Your task to perform on an android device: turn off notifications in google photos Image 0: 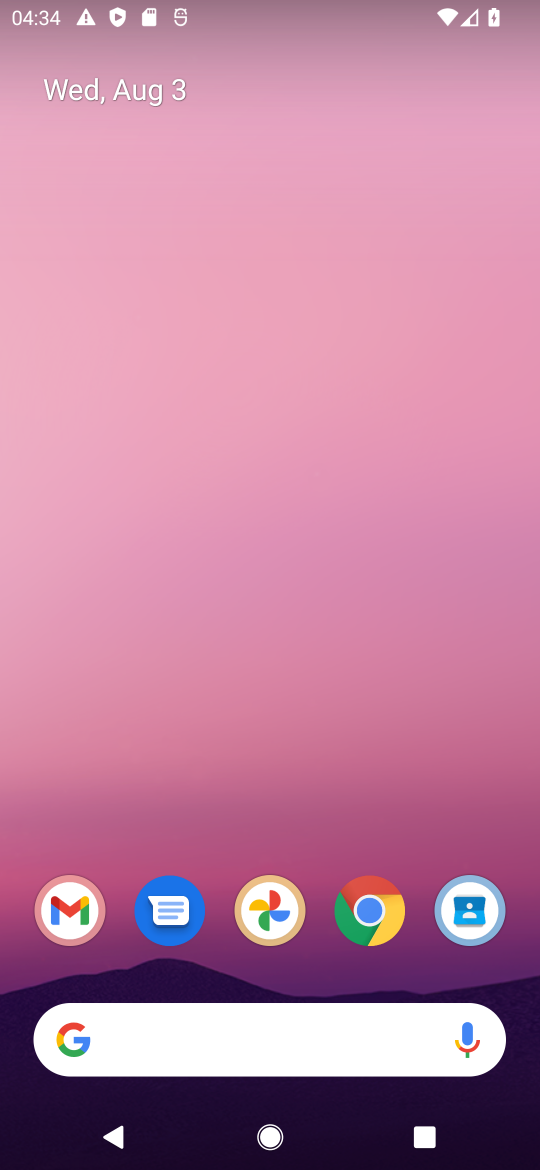
Step 0: click (275, 896)
Your task to perform on an android device: turn off notifications in google photos Image 1: 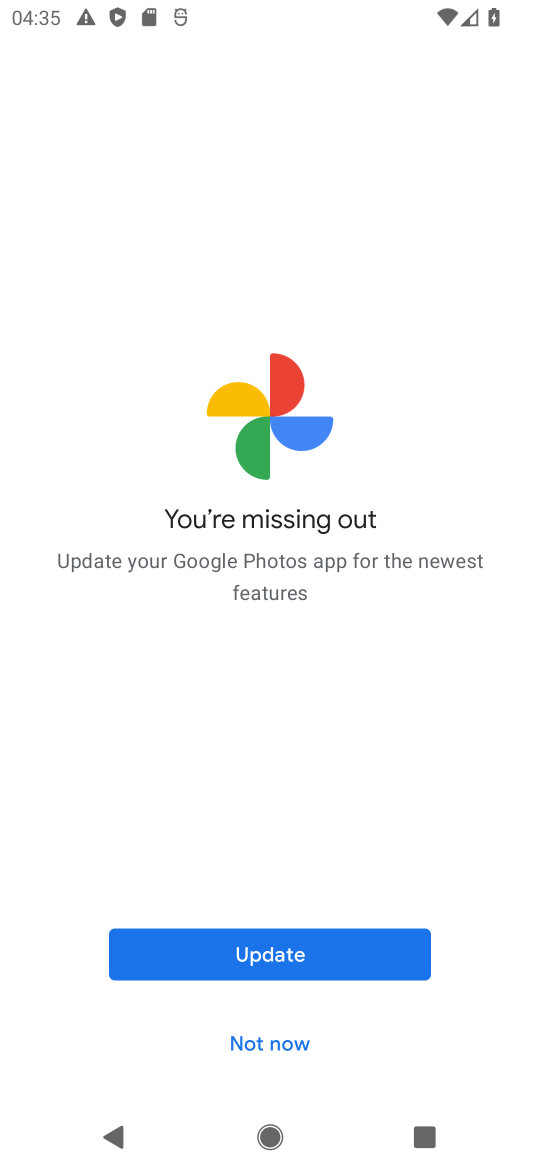
Step 1: click (273, 961)
Your task to perform on an android device: turn off notifications in google photos Image 2: 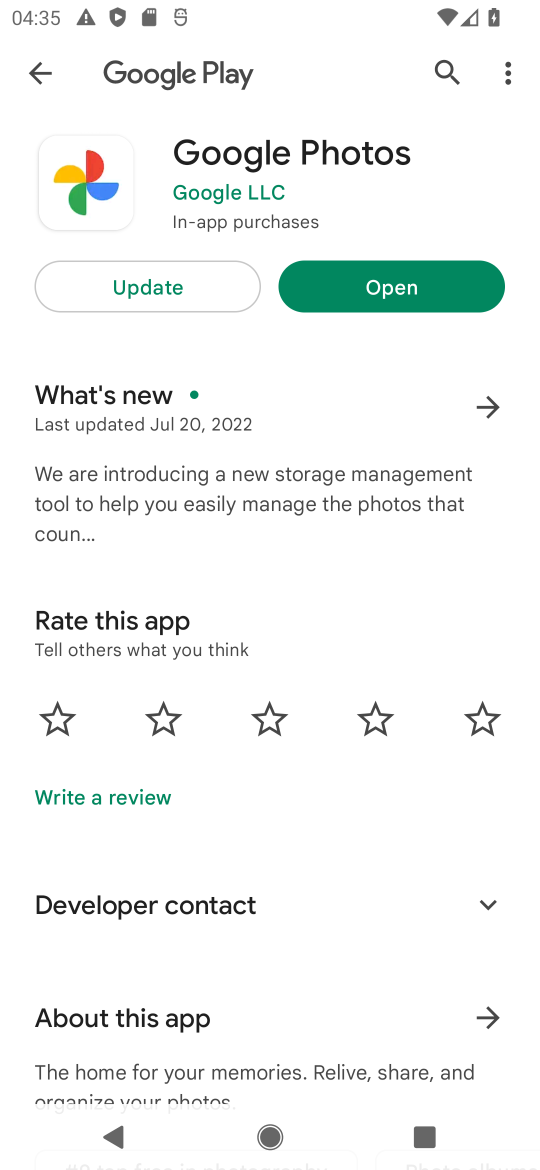
Step 2: click (97, 284)
Your task to perform on an android device: turn off notifications in google photos Image 3: 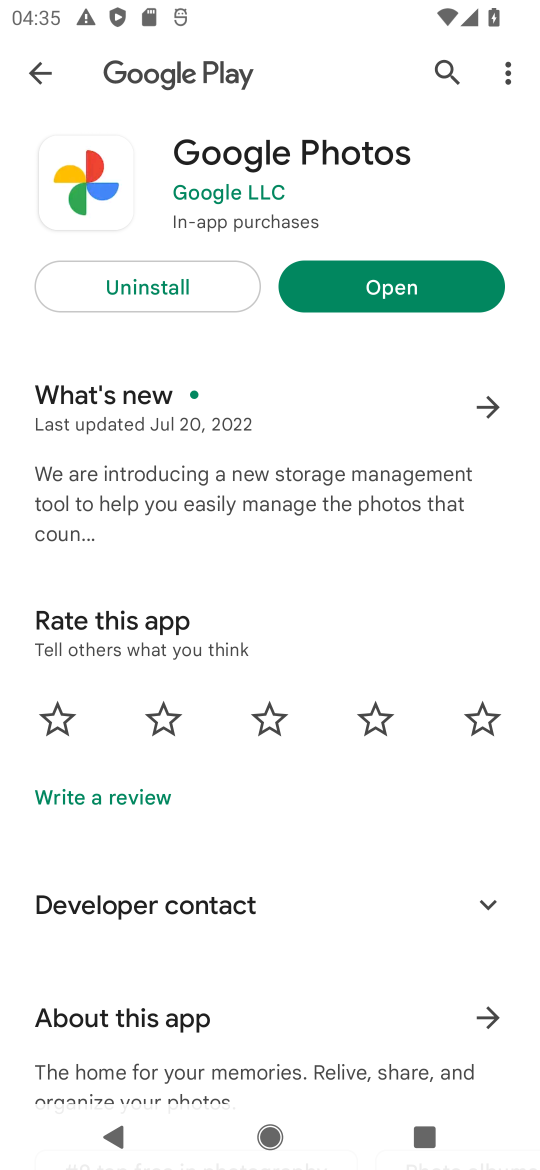
Step 3: click (405, 294)
Your task to perform on an android device: turn off notifications in google photos Image 4: 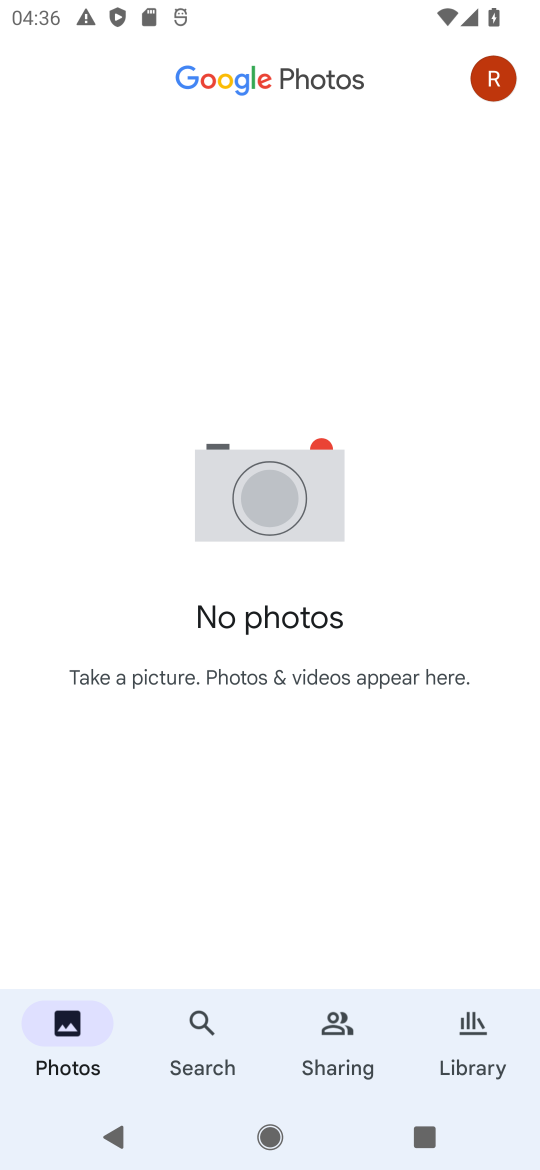
Step 4: click (507, 71)
Your task to perform on an android device: turn off notifications in google photos Image 5: 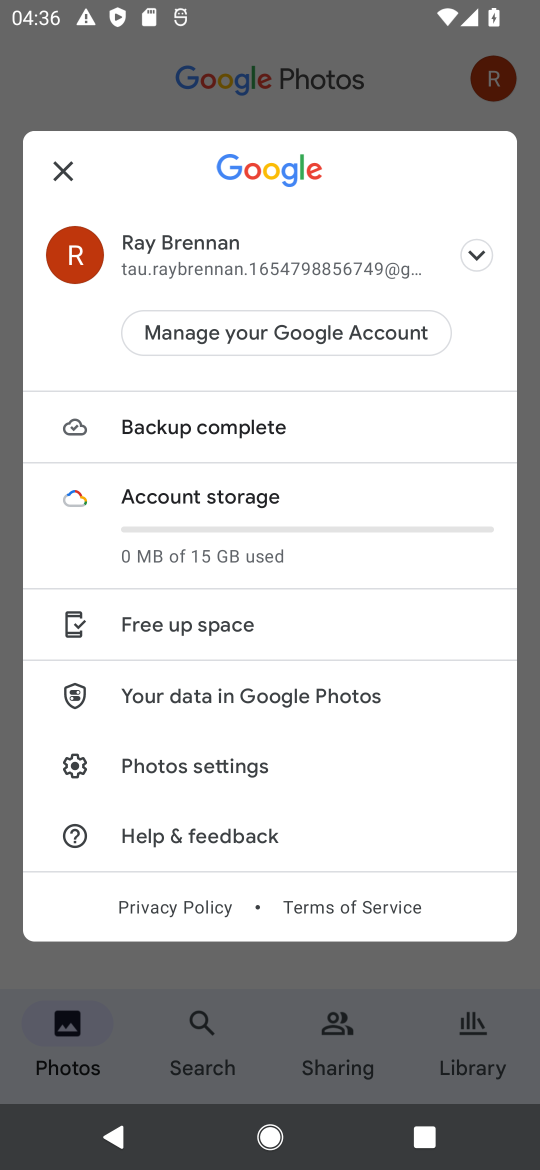
Step 5: click (175, 771)
Your task to perform on an android device: turn off notifications in google photos Image 6: 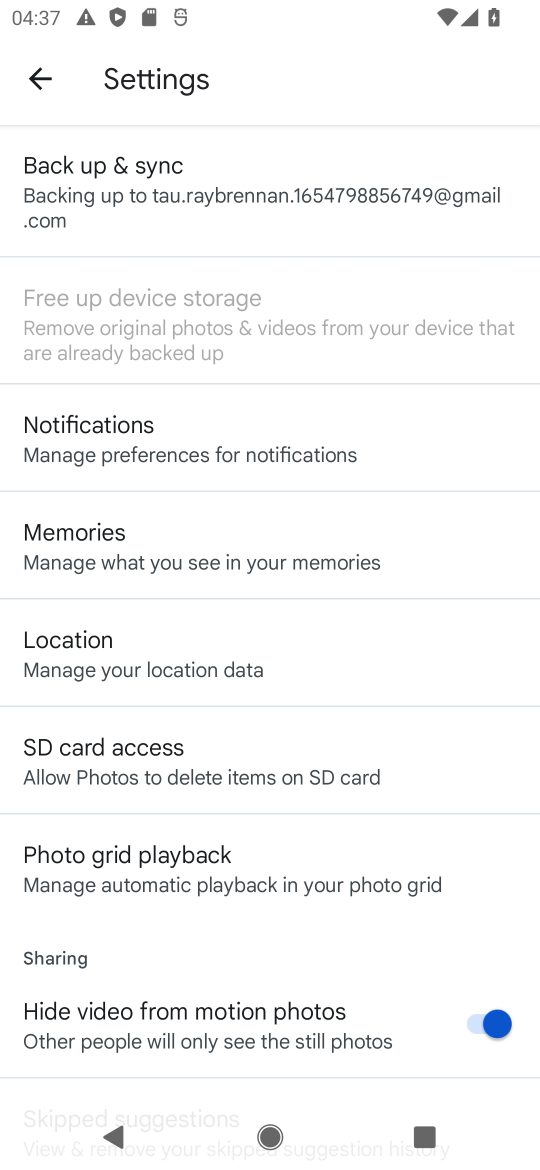
Step 6: click (115, 433)
Your task to perform on an android device: turn off notifications in google photos Image 7: 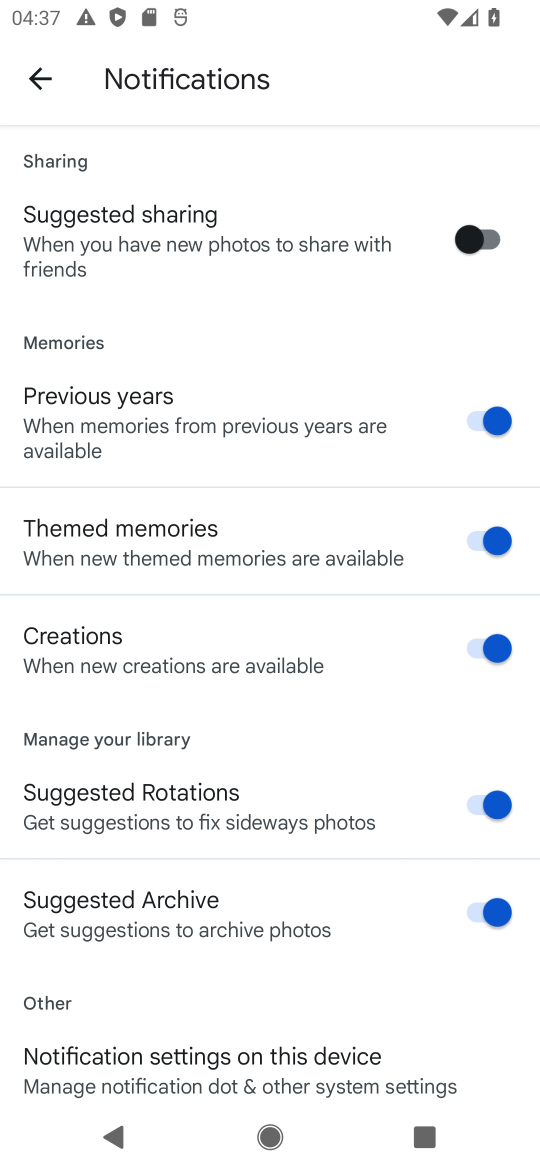
Step 7: drag from (200, 893) to (251, 98)
Your task to perform on an android device: turn off notifications in google photos Image 8: 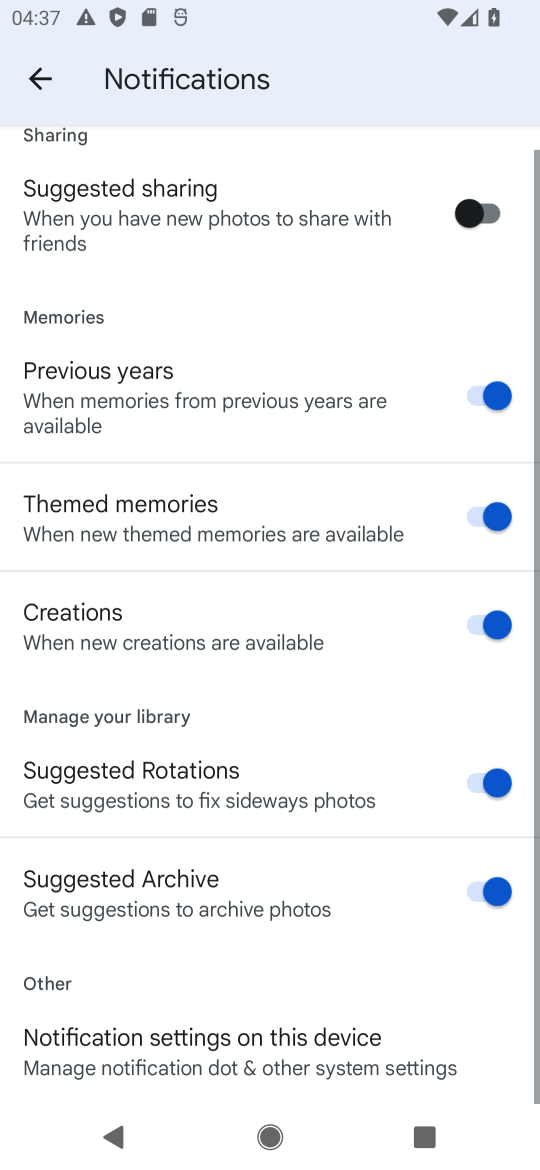
Step 8: click (241, 1023)
Your task to perform on an android device: turn off notifications in google photos Image 9: 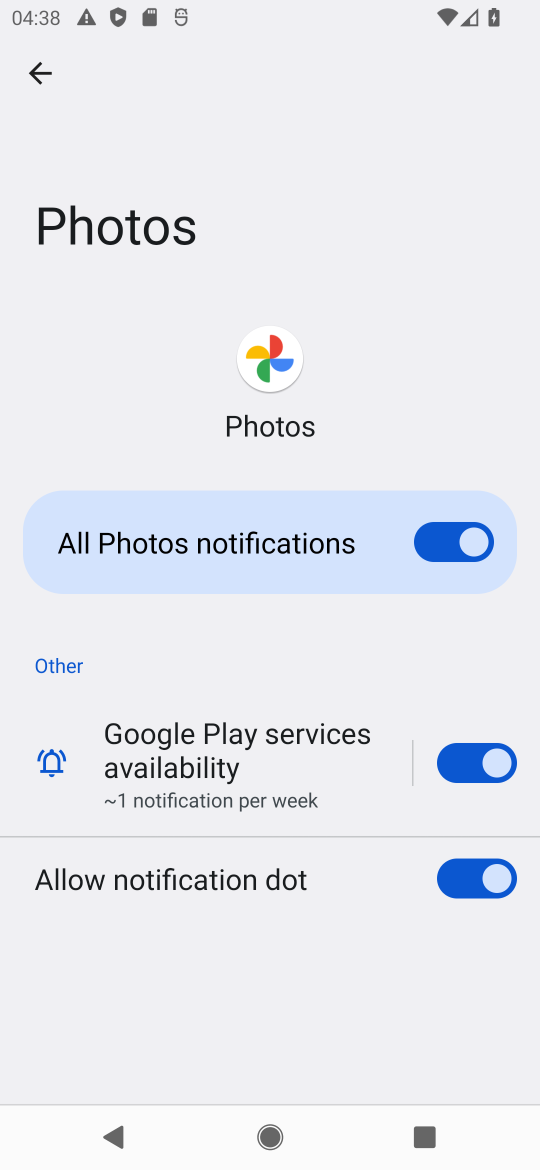
Step 9: click (476, 558)
Your task to perform on an android device: turn off notifications in google photos Image 10: 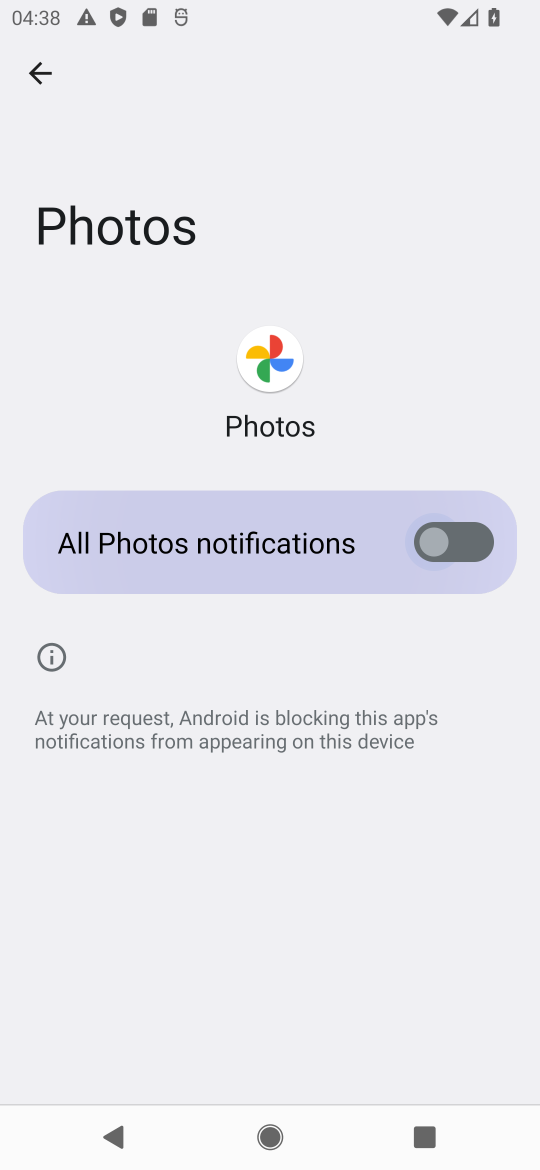
Step 10: task complete